Your task to perform on an android device: open a new tab in the chrome app Image 0: 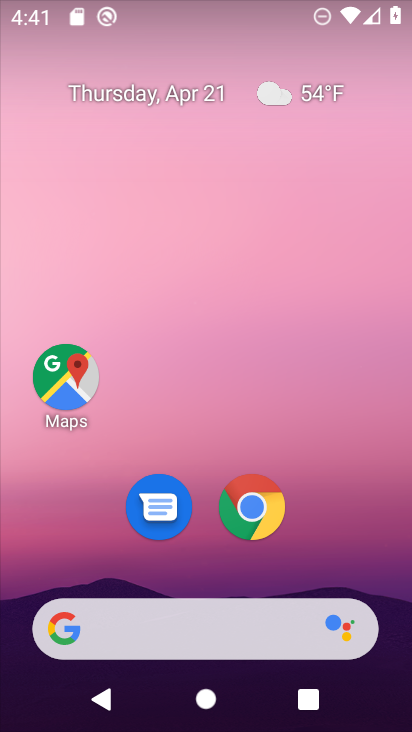
Step 0: drag from (347, 420) to (268, 89)
Your task to perform on an android device: open a new tab in the chrome app Image 1: 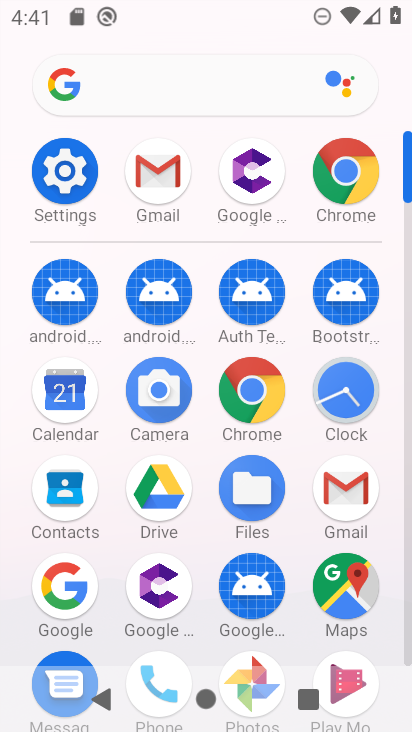
Step 1: click (332, 177)
Your task to perform on an android device: open a new tab in the chrome app Image 2: 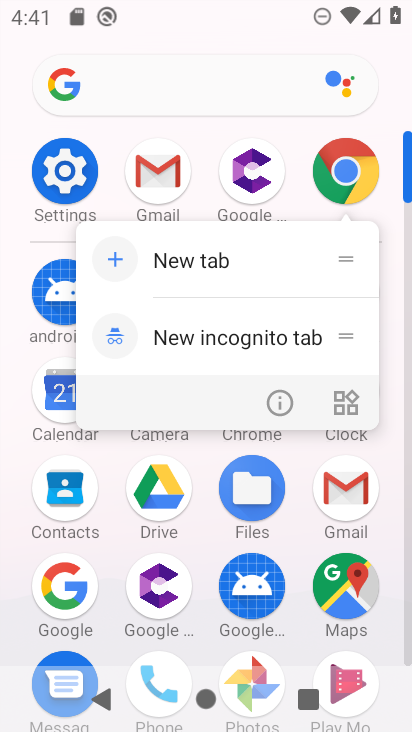
Step 2: click (333, 195)
Your task to perform on an android device: open a new tab in the chrome app Image 3: 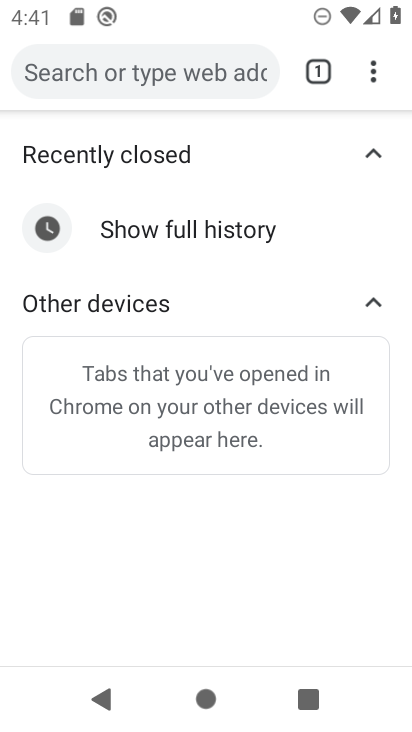
Step 3: task complete